Your task to perform on an android device: Open the web browser Image 0: 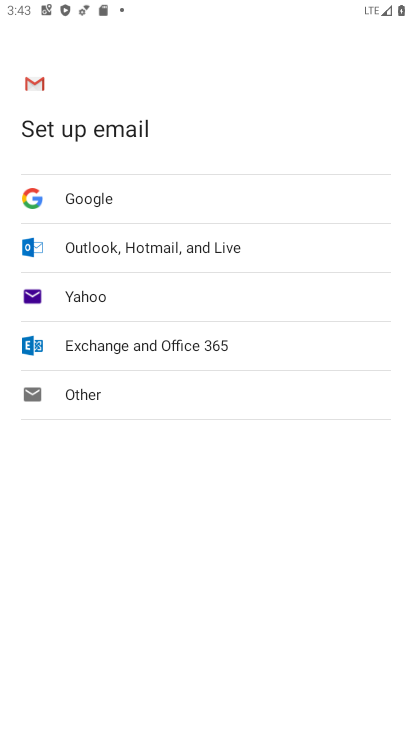
Step 0: press home button
Your task to perform on an android device: Open the web browser Image 1: 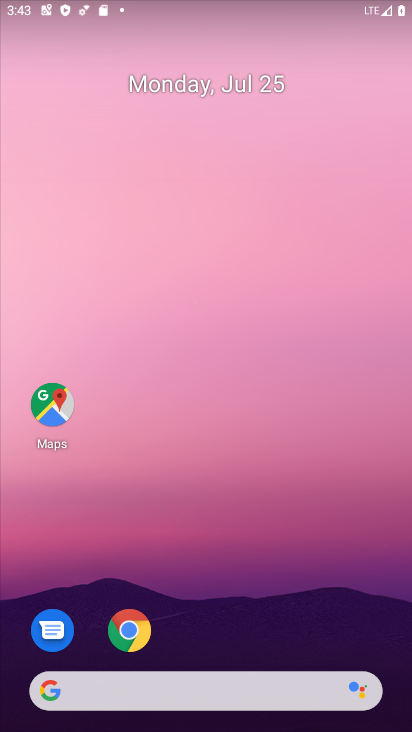
Step 1: drag from (231, 599) to (187, 2)
Your task to perform on an android device: Open the web browser Image 2: 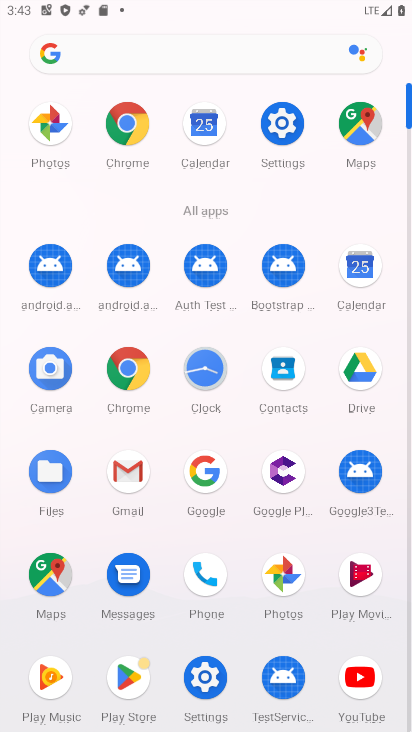
Step 2: click (127, 389)
Your task to perform on an android device: Open the web browser Image 3: 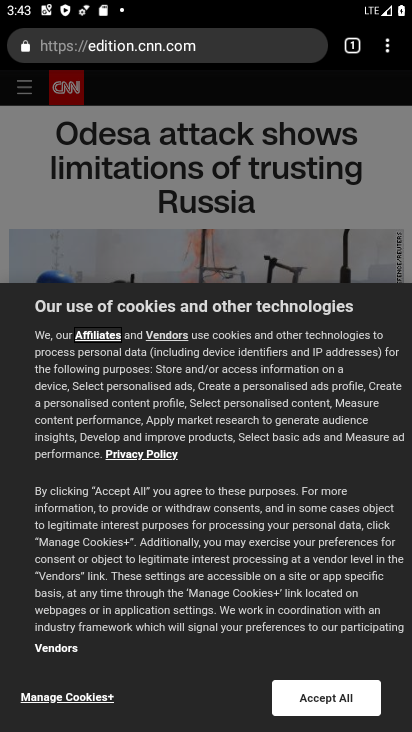
Step 3: task complete